Your task to perform on an android device: clear all cookies in the chrome app Image 0: 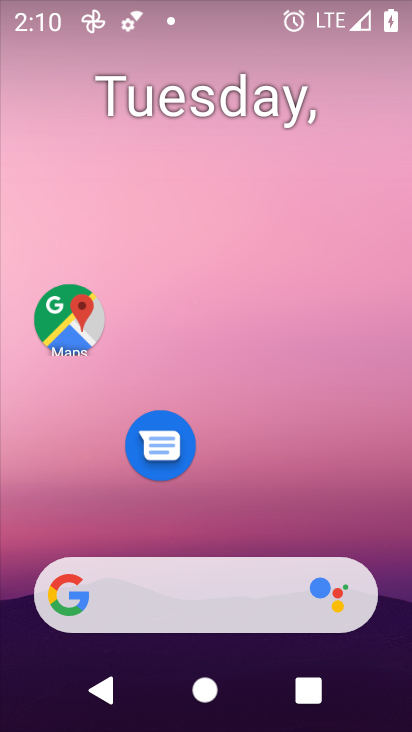
Step 0: drag from (239, 469) to (186, 43)
Your task to perform on an android device: clear all cookies in the chrome app Image 1: 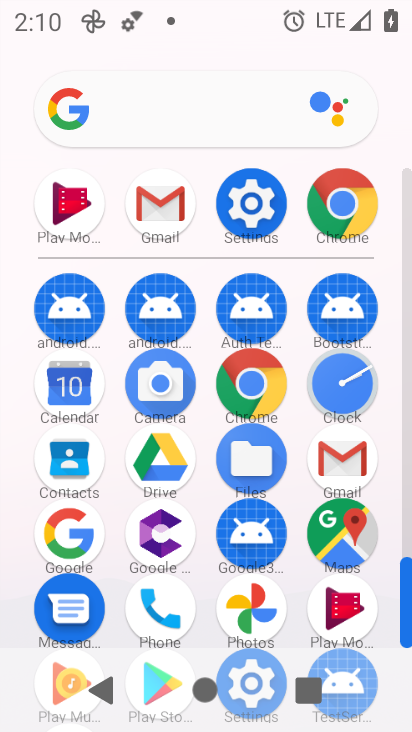
Step 1: click (345, 205)
Your task to perform on an android device: clear all cookies in the chrome app Image 2: 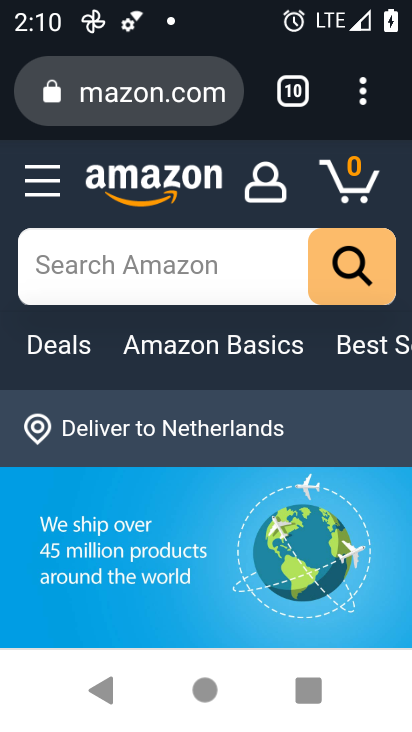
Step 2: click (364, 88)
Your task to perform on an android device: clear all cookies in the chrome app Image 3: 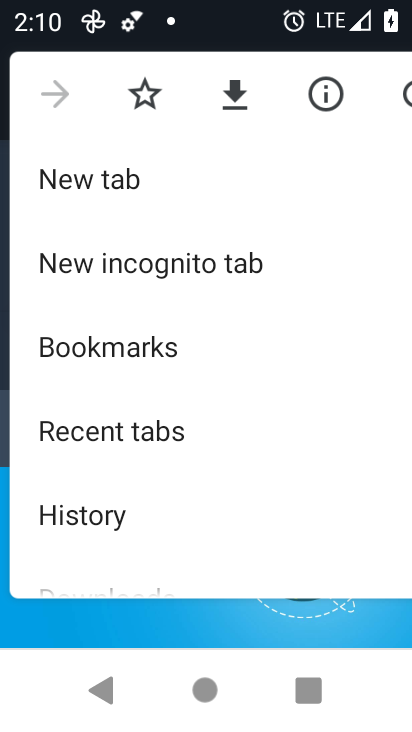
Step 3: click (85, 513)
Your task to perform on an android device: clear all cookies in the chrome app Image 4: 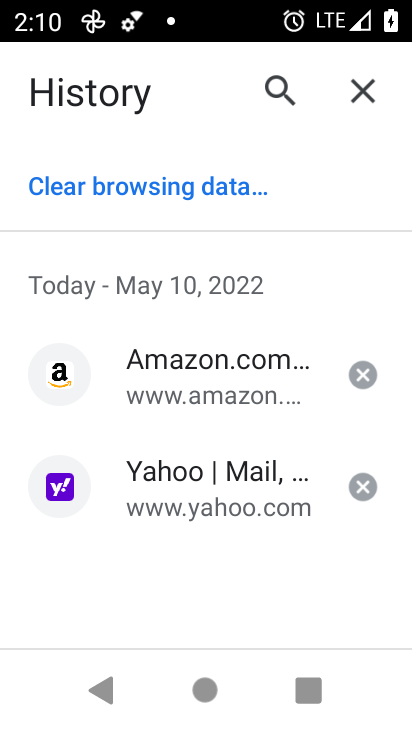
Step 4: click (116, 182)
Your task to perform on an android device: clear all cookies in the chrome app Image 5: 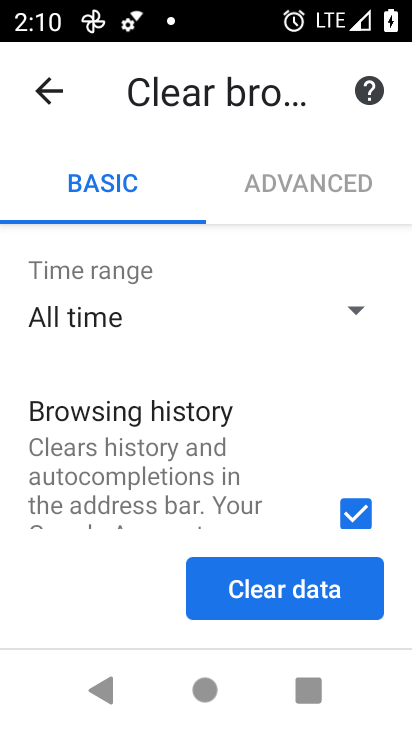
Step 5: click (353, 518)
Your task to perform on an android device: clear all cookies in the chrome app Image 6: 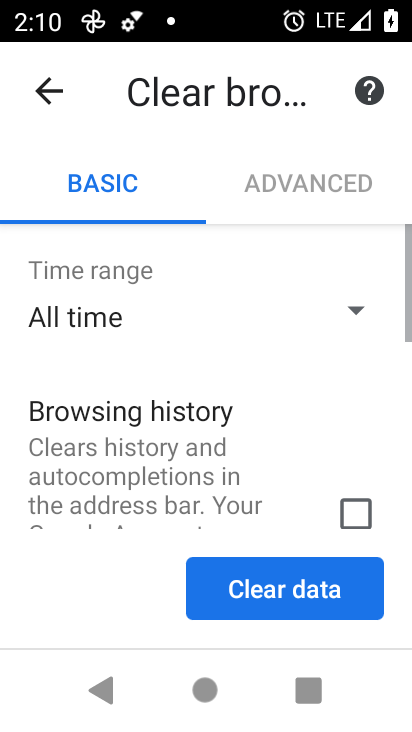
Step 6: drag from (269, 485) to (139, 123)
Your task to perform on an android device: clear all cookies in the chrome app Image 7: 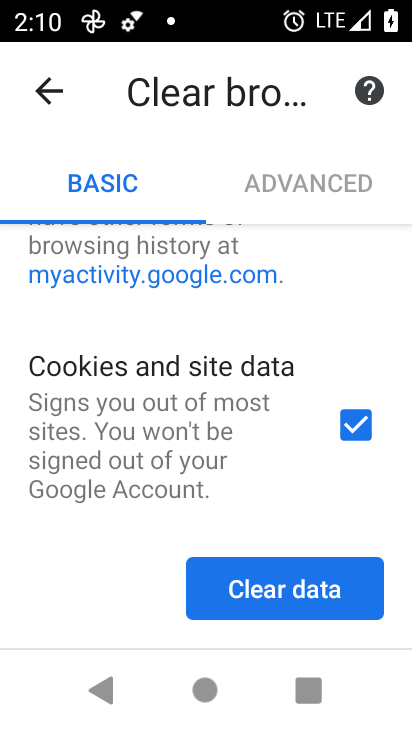
Step 7: click (288, 594)
Your task to perform on an android device: clear all cookies in the chrome app Image 8: 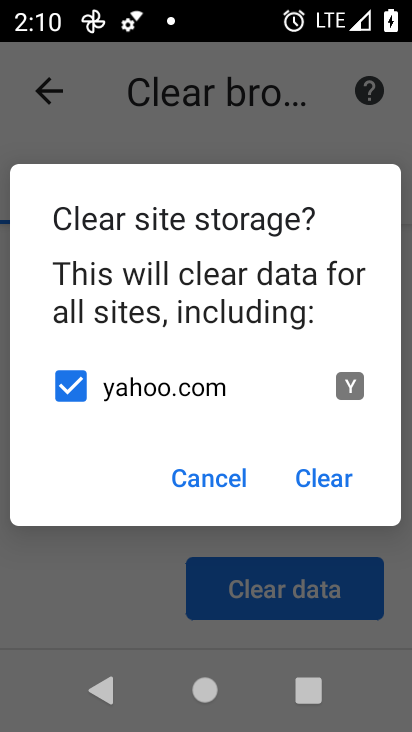
Step 8: click (332, 473)
Your task to perform on an android device: clear all cookies in the chrome app Image 9: 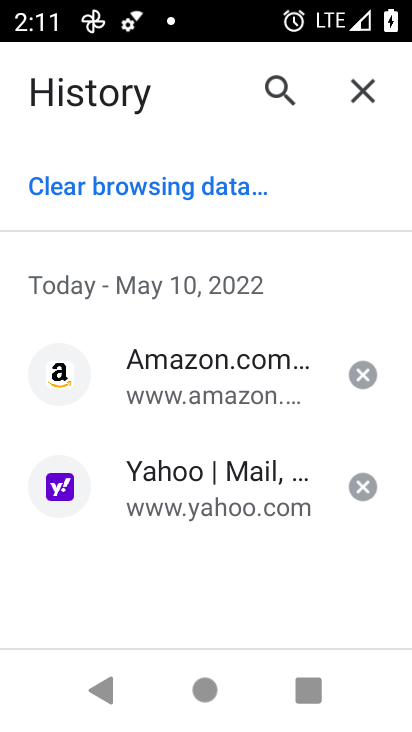
Step 9: task complete